Your task to perform on an android device: snooze an email in the gmail app Image 0: 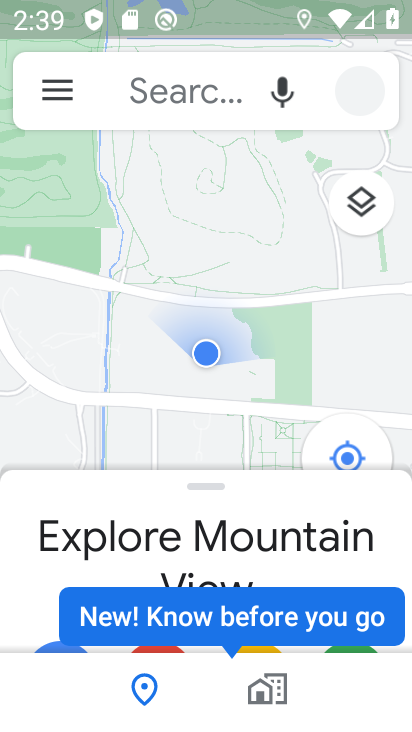
Step 0: press home button
Your task to perform on an android device: snooze an email in the gmail app Image 1: 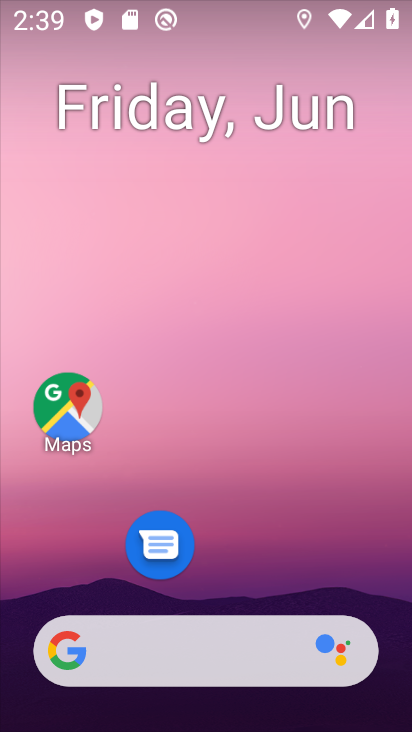
Step 1: drag from (263, 540) to (264, 22)
Your task to perform on an android device: snooze an email in the gmail app Image 2: 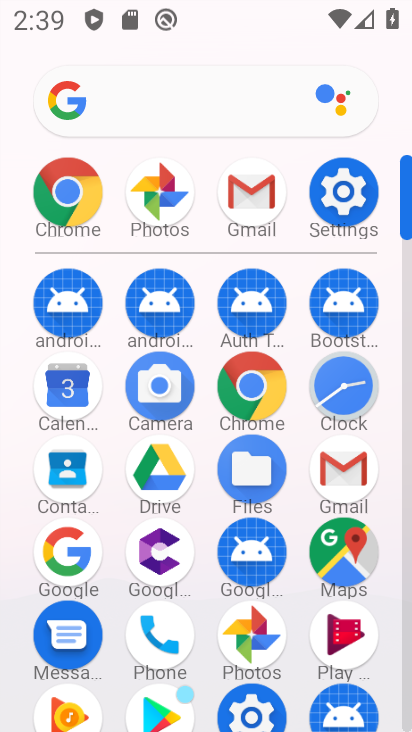
Step 2: click (349, 517)
Your task to perform on an android device: snooze an email in the gmail app Image 3: 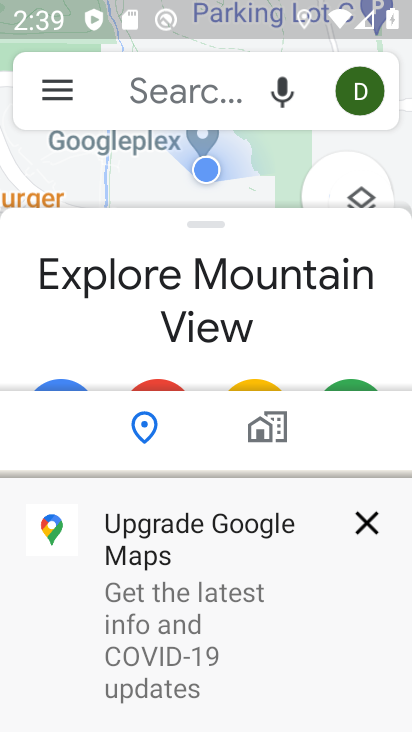
Step 3: press home button
Your task to perform on an android device: snooze an email in the gmail app Image 4: 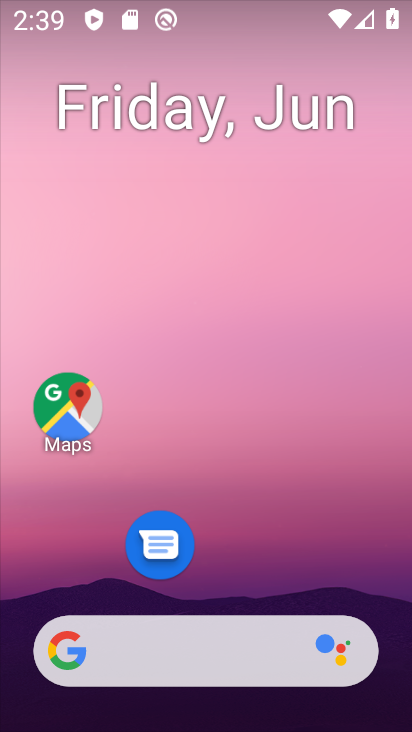
Step 4: drag from (234, 556) to (251, 17)
Your task to perform on an android device: snooze an email in the gmail app Image 5: 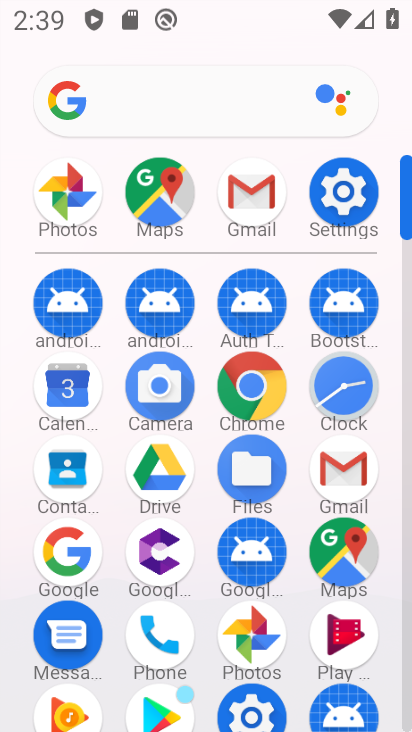
Step 5: click (351, 481)
Your task to perform on an android device: snooze an email in the gmail app Image 6: 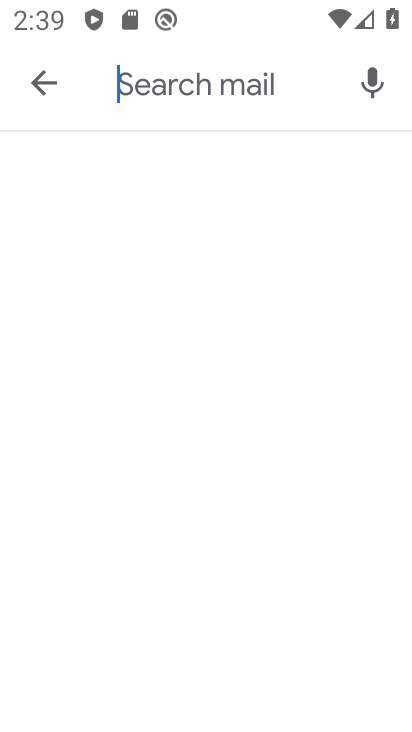
Step 6: click (63, 83)
Your task to perform on an android device: snooze an email in the gmail app Image 7: 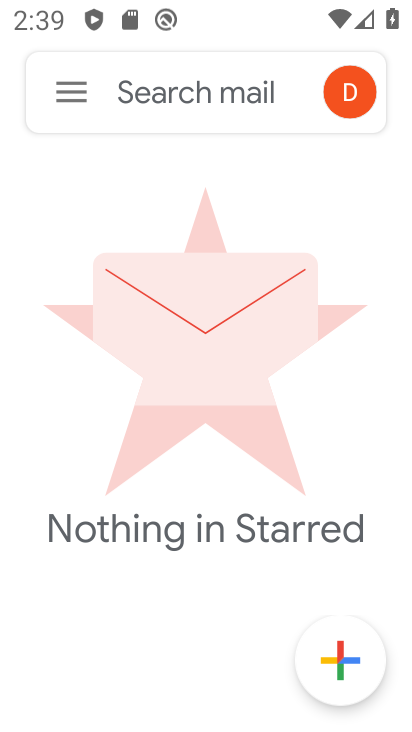
Step 7: click (62, 83)
Your task to perform on an android device: snooze an email in the gmail app Image 8: 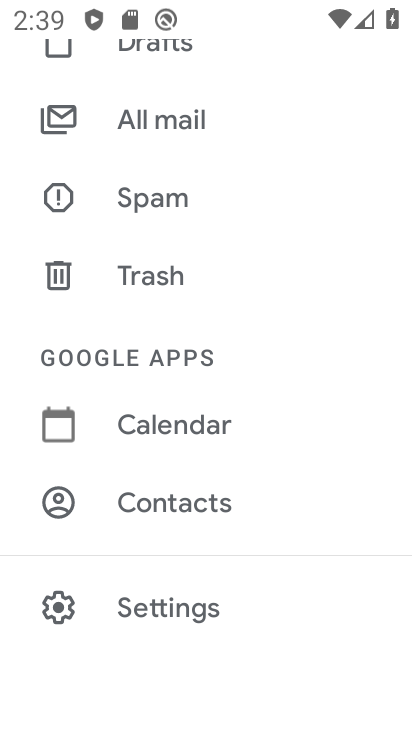
Step 8: drag from (190, 583) to (186, 535)
Your task to perform on an android device: snooze an email in the gmail app Image 9: 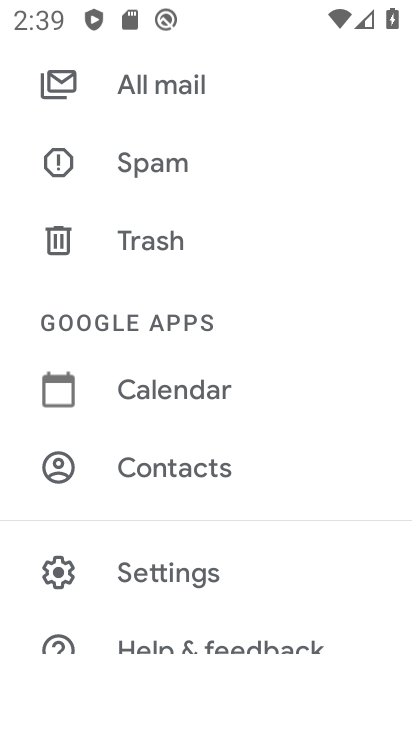
Step 9: click (167, 94)
Your task to perform on an android device: snooze an email in the gmail app Image 10: 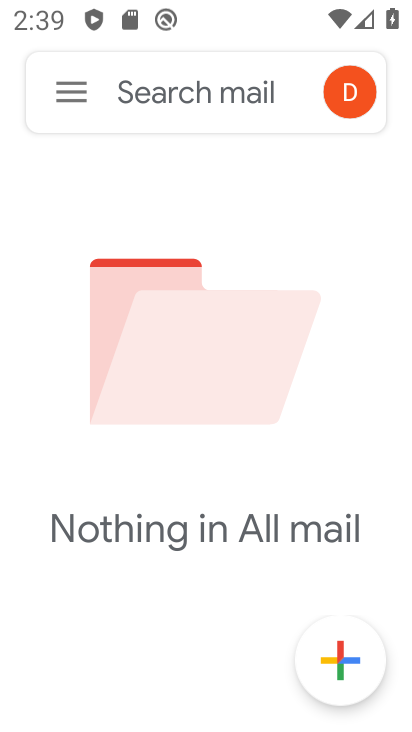
Step 10: task complete